Your task to perform on an android device: add a label to a message in the gmail app Image 0: 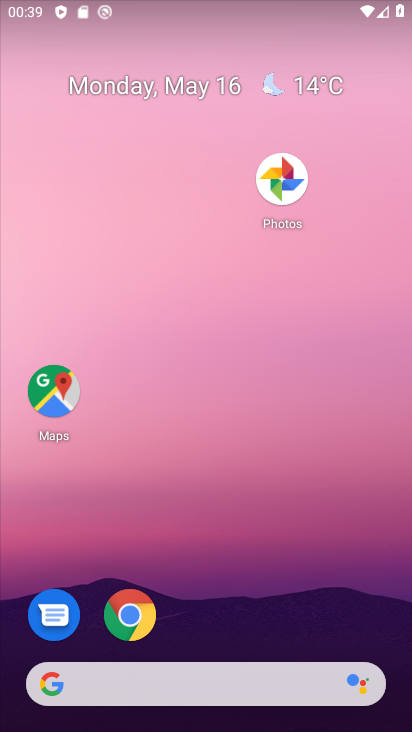
Step 0: drag from (339, 602) to (354, 157)
Your task to perform on an android device: add a label to a message in the gmail app Image 1: 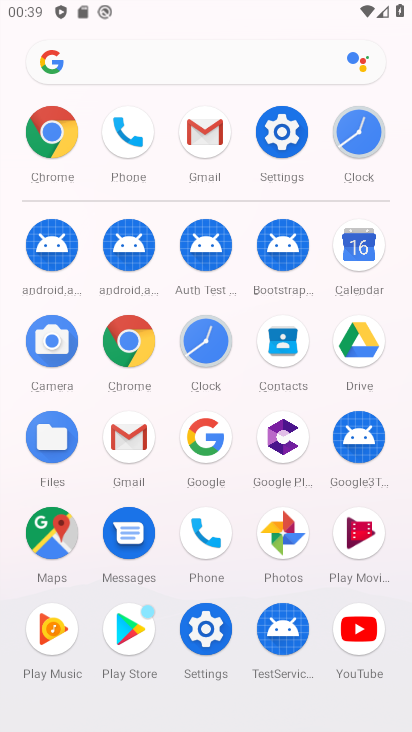
Step 1: click (138, 446)
Your task to perform on an android device: add a label to a message in the gmail app Image 2: 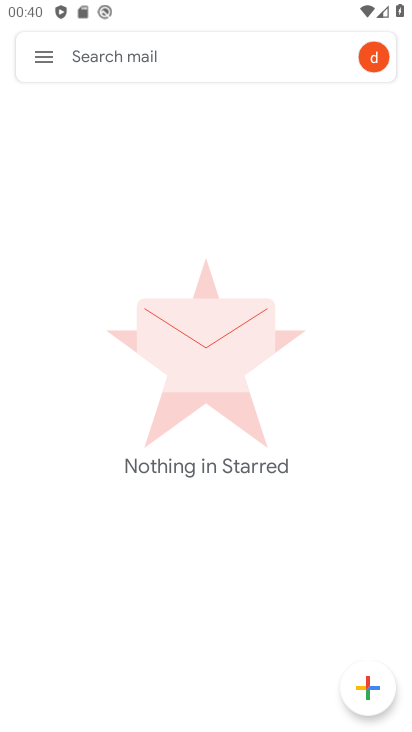
Step 2: click (31, 60)
Your task to perform on an android device: add a label to a message in the gmail app Image 3: 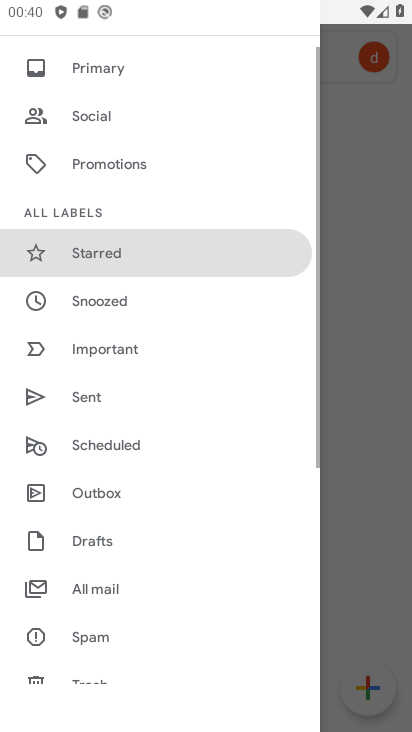
Step 3: drag from (210, 661) to (200, 253)
Your task to perform on an android device: add a label to a message in the gmail app Image 4: 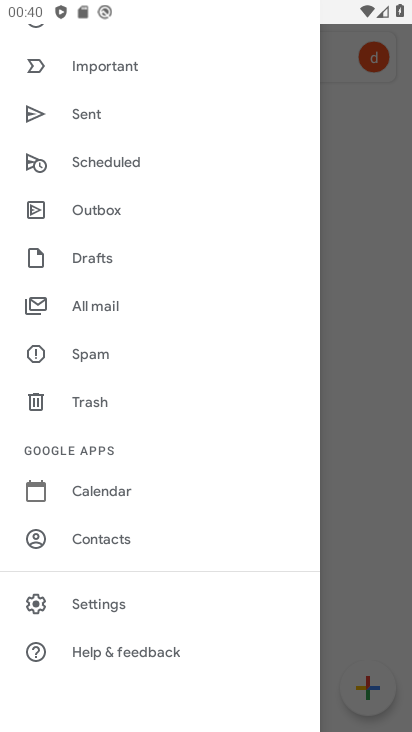
Step 4: drag from (160, 163) to (140, 439)
Your task to perform on an android device: add a label to a message in the gmail app Image 5: 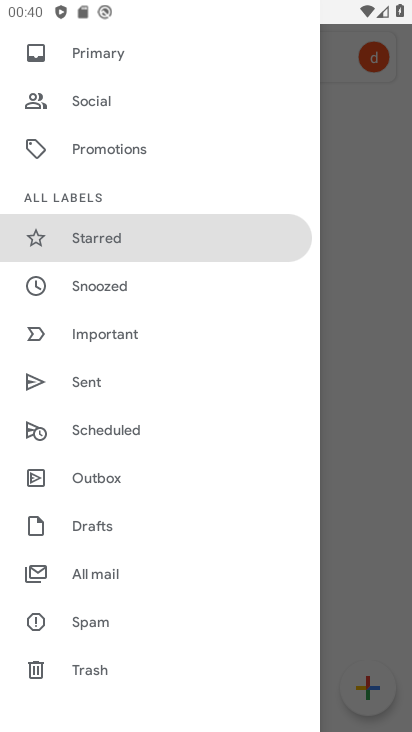
Step 5: click (99, 572)
Your task to perform on an android device: add a label to a message in the gmail app Image 6: 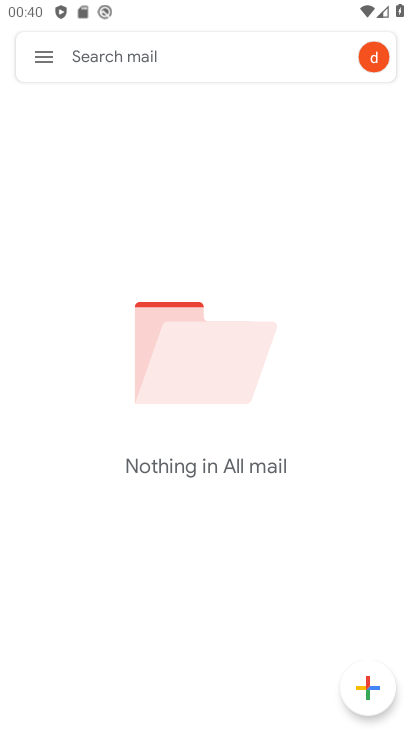
Step 6: task complete